Your task to perform on an android device: Open wifi settings Image 0: 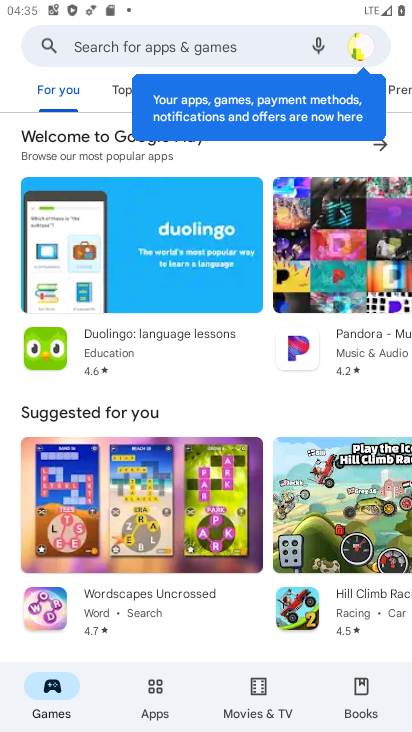
Step 0: drag from (238, 14) to (202, 577)
Your task to perform on an android device: Open wifi settings Image 1: 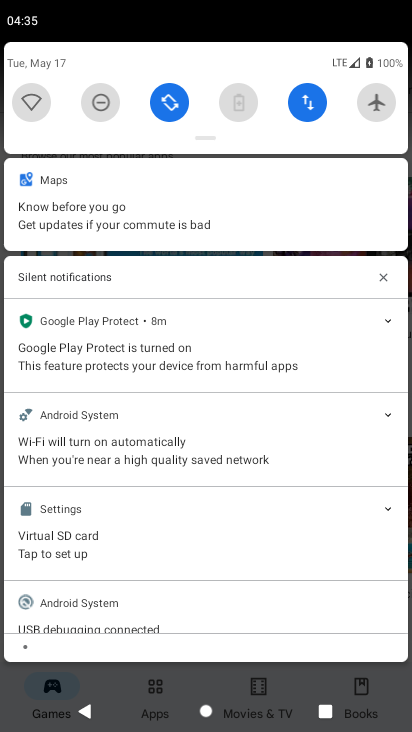
Step 1: click (31, 100)
Your task to perform on an android device: Open wifi settings Image 2: 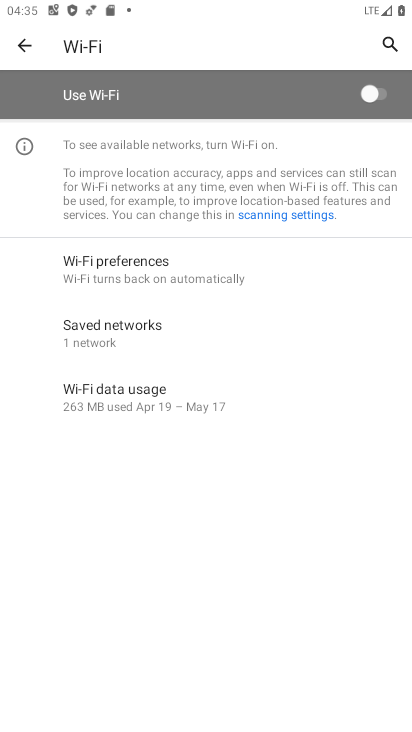
Step 2: click (374, 98)
Your task to perform on an android device: Open wifi settings Image 3: 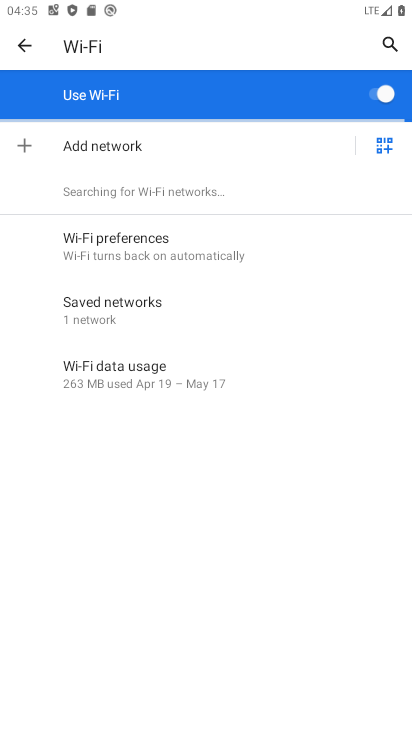
Step 3: task complete